Your task to perform on an android device: Do I have any events this weekend? Image 0: 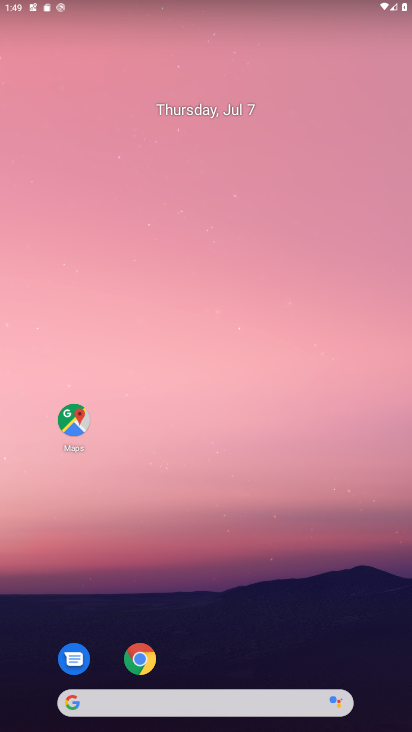
Step 0: drag from (205, 670) to (274, 94)
Your task to perform on an android device: Do I have any events this weekend? Image 1: 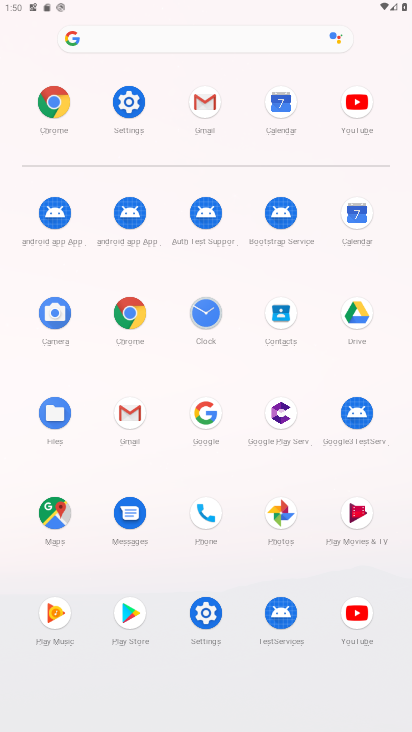
Step 1: click (359, 203)
Your task to perform on an android device: Do I have any events this weekend? Image 2: 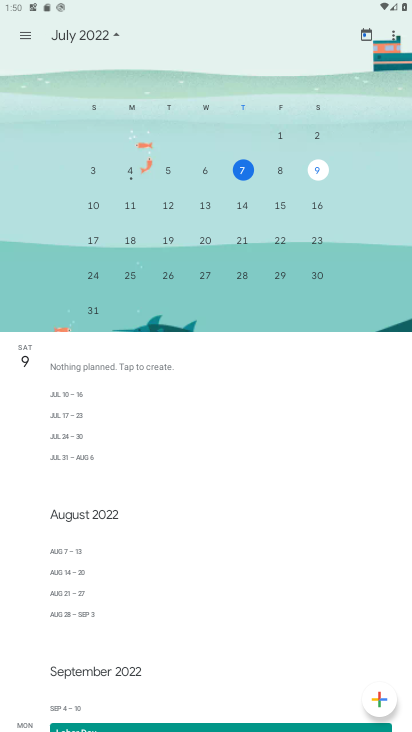
Step 2: click (323, 174)
Your task to perform on an android device: Do I have any events this weekend? Image 3: 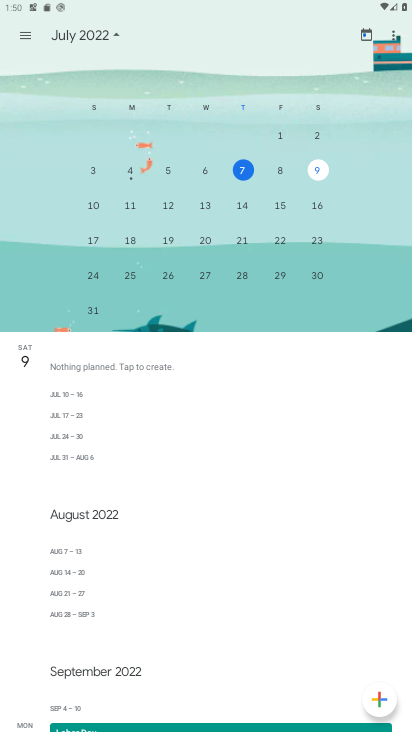
Step 3: task complete